Your task to perform on an android device: clear all cookies in the chrome app Image 0: 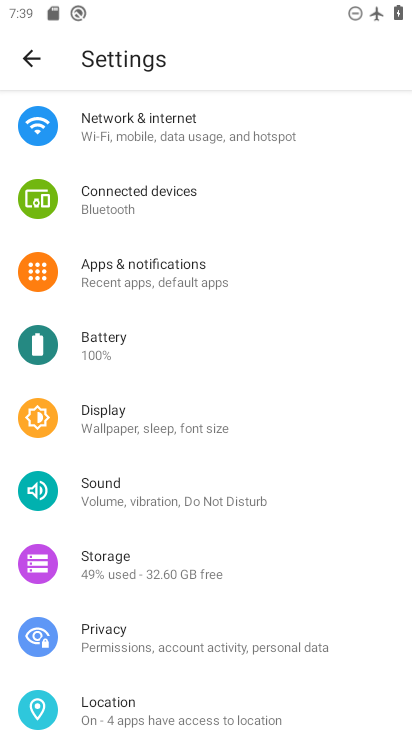
Step 0: press home button
Your task to perform on an android device: clear all cookies in the chrome app Image 1: 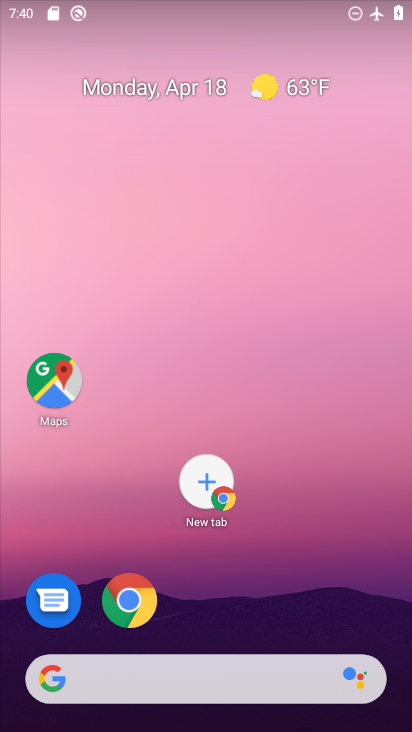
Step 1: click (134, 601)
Your task to perform on an android device: clear all cookies in the chrome app Image 2: 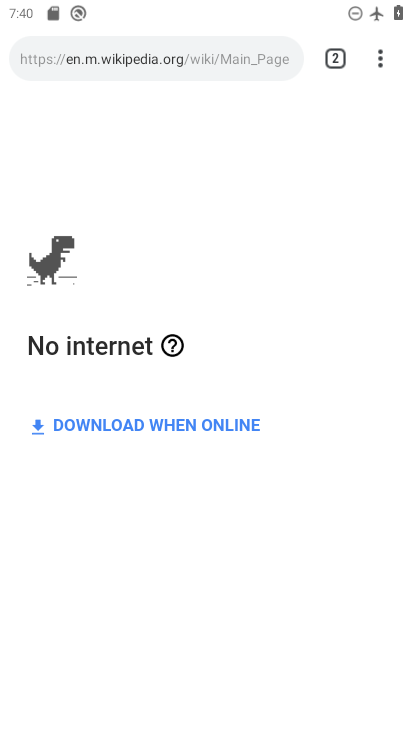
Step 2: click (382, 58)
Your task to perform on an android device: clear all cookies in the chrome app Image 3: 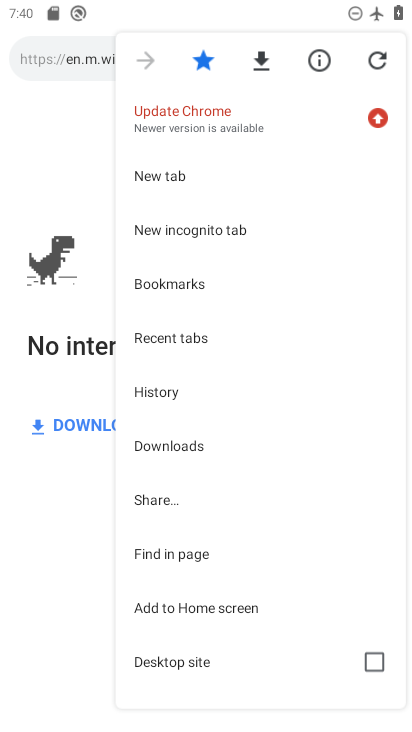
Step 3: drag from (259, 641) to (250, 199)
Your task to perform on an android device: clear all cookies in the chrome app Image 4: 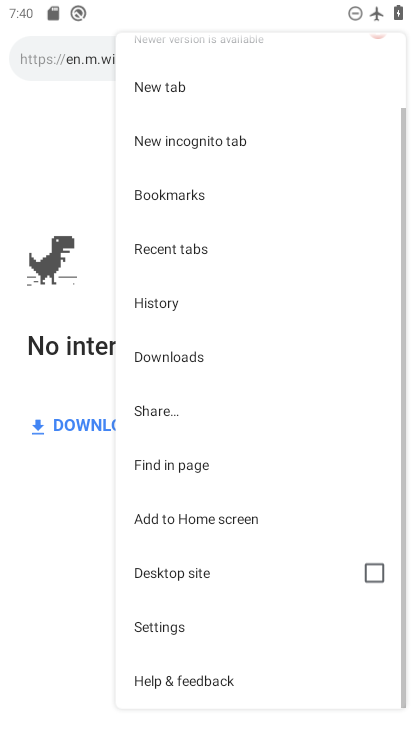
Step 4: click (150, 618)
Your task to perform on an android device: clear all cookies in the chrome app Image 5: 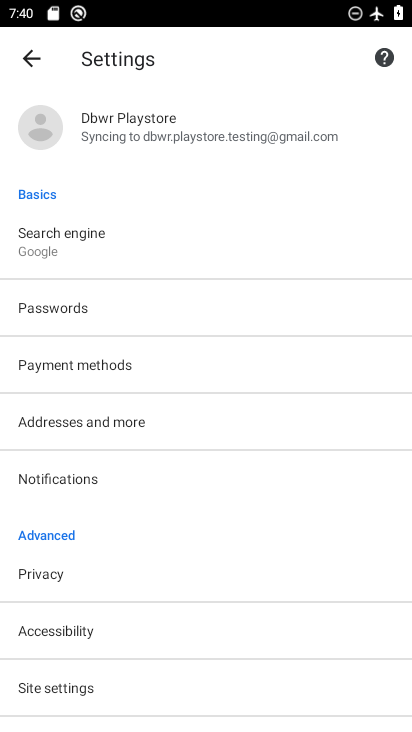
Step 5: click (38, 570)
Your task to perform on an android device: clear all cookies in the chrome app Image 6: 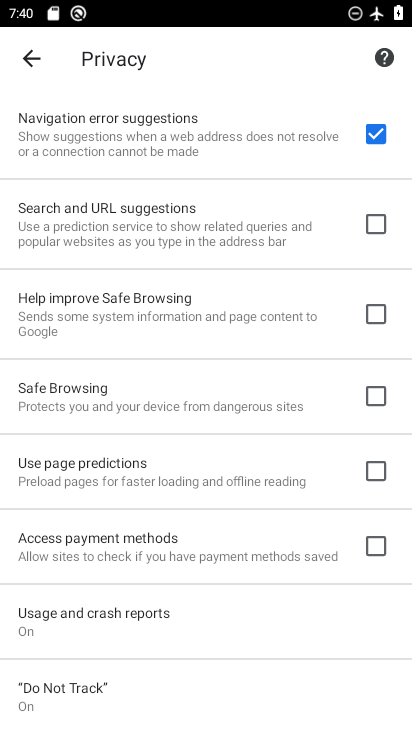
Step 6: drag from (192, 621) to (172, 141)
Your task to perform on an android device: clear all cookies in the chrome app Image 7: 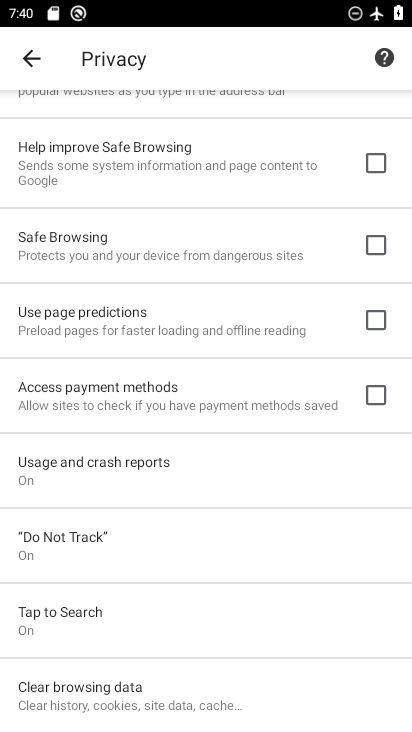
Step 7: drag from (207, 597) to (194, 278)
Your task to perform on an android device: clear all cookies in the chrome app Image 8: 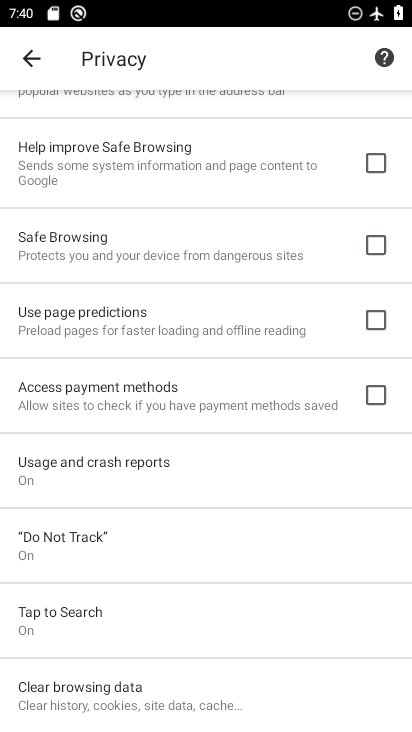
Step 8: click (85, 690)
Your task to perform on an android device: clear all cookies in the chrome app Image 9: 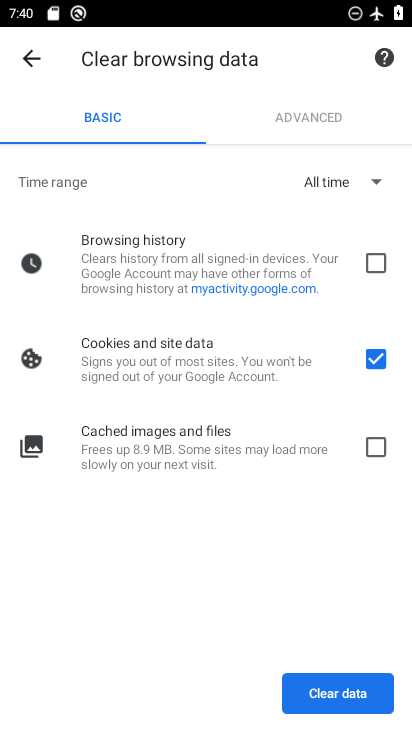
Step 9: click (305, 697)
Your task to perform on an android device: clear all cookies in the chrome app Image 10: 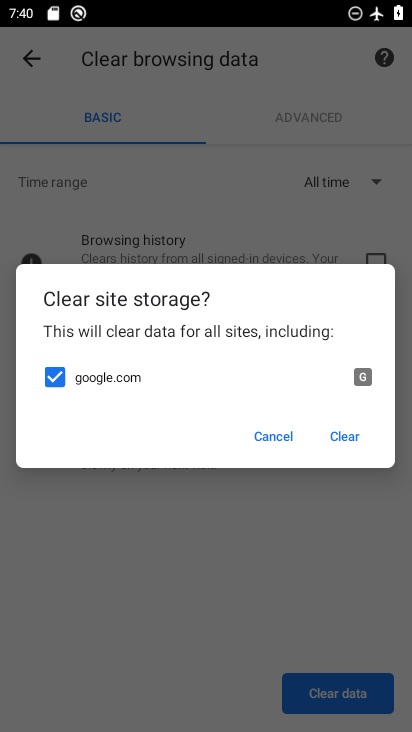
Step 10: click (356, 440)
Your task to perform on an android device: clear all cookies in the chrome app Image 11: 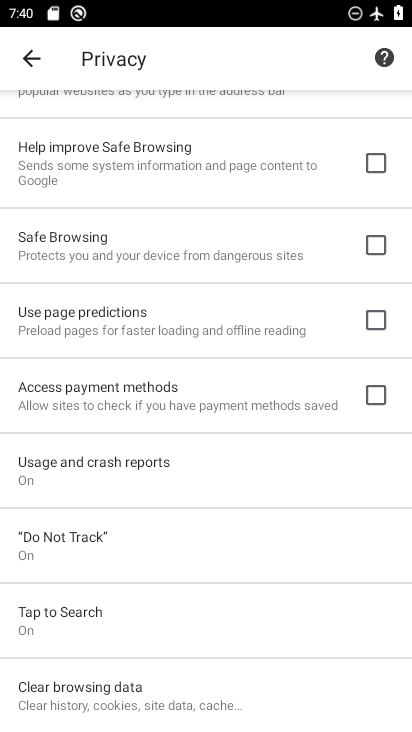
Step 11: task complete